Your task to perform on an android device: Open Chrome and go to the settings page Image 0: 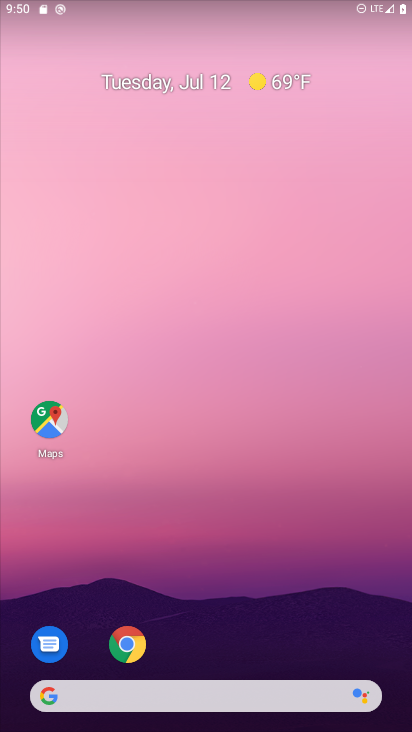
Step 0: press home button
Your task to perform on an android device: Open Chrome and go to the settings page Image 1: 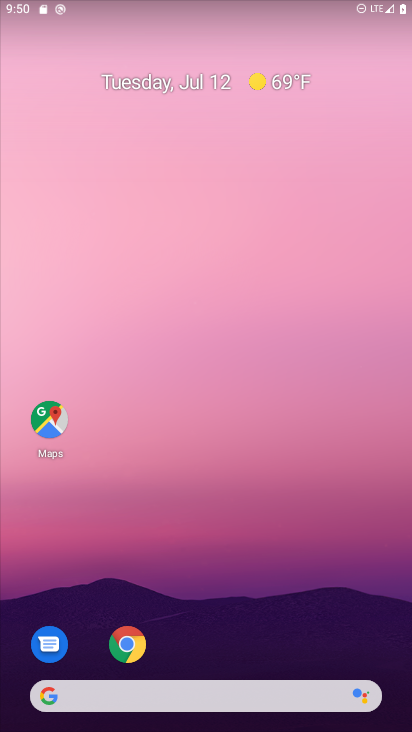
Step 1: click (126, 641)
Your task to perform on an android device: Open Chrome and go to the settings page Image 2: 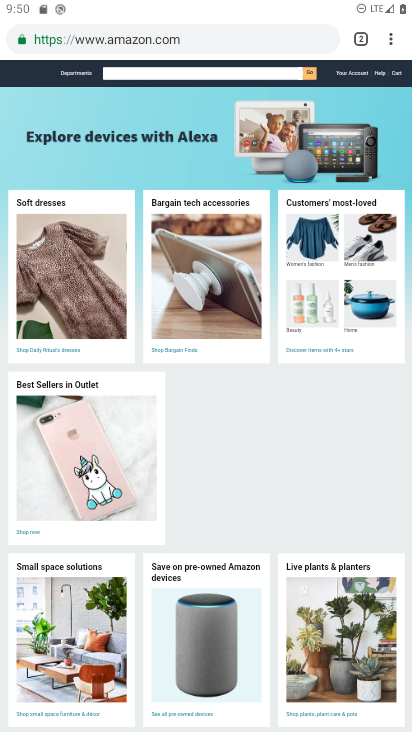
Step 2: click (391, 43)
Your task to perform on an android device: Open Chrome and go to the settings page Image 3: 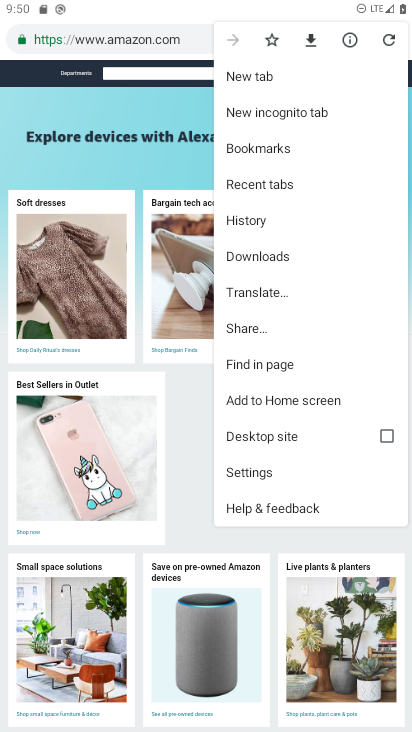
Step 3: click (278, 470)
Your task to perform on an android device: Open Chrome and go to the settings page Image 4: 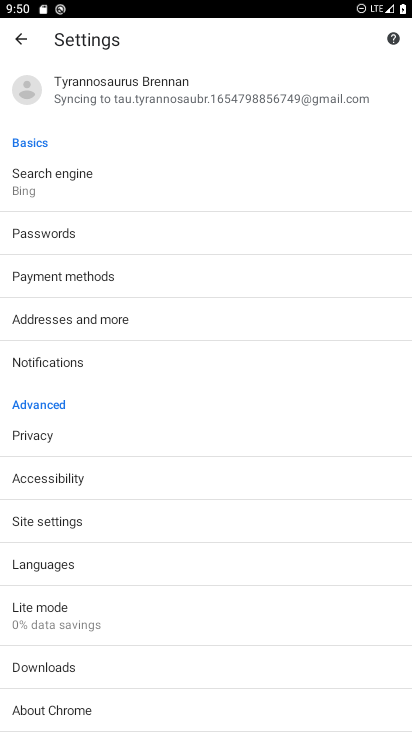
Step 4: task complete